Your task to perform on an android device: see sites visited before in the chrome app Image 0: 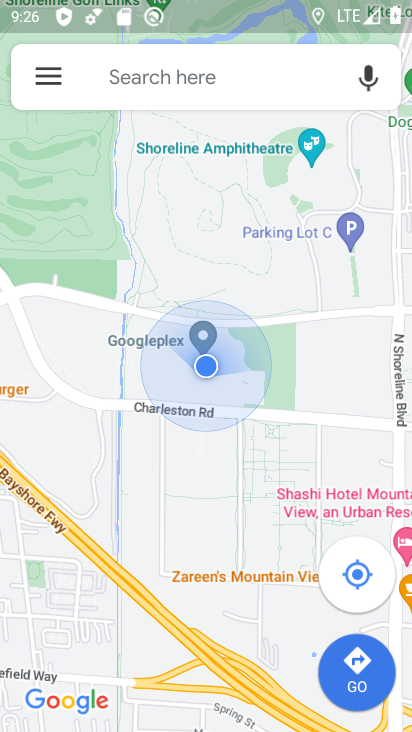
Step 0: press home button
Your task to perform on an android device: see sites visited before in the chrome app Image 1: 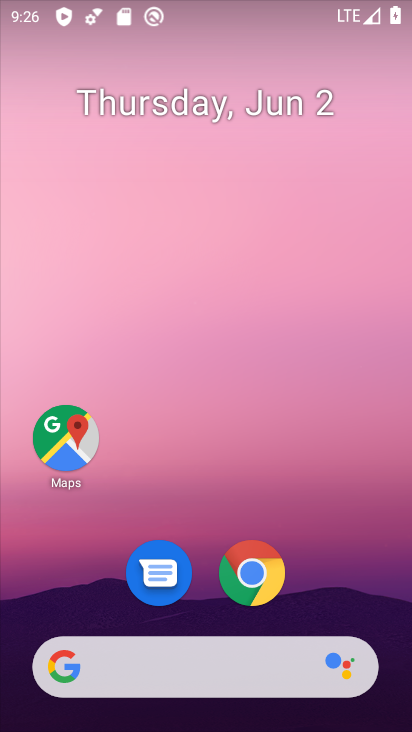
Step 1: click (247, 577)
Your task to perform on an android device: see sites visited before in the chrome app Image 2: 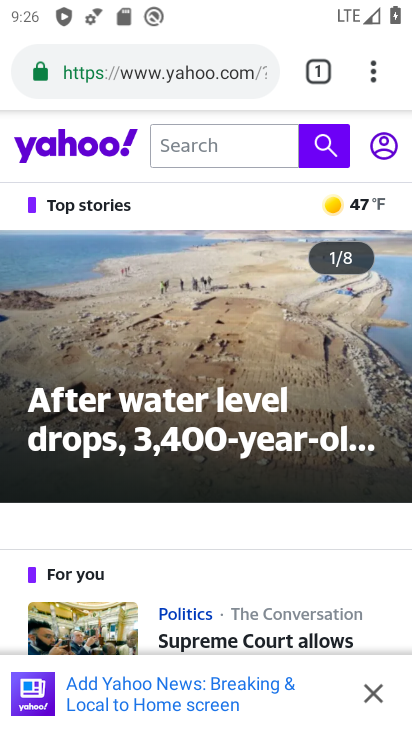
Step 2: click (372, 67)
Your task to perform on an android device: see sites visited before in the chrome app Image 3: 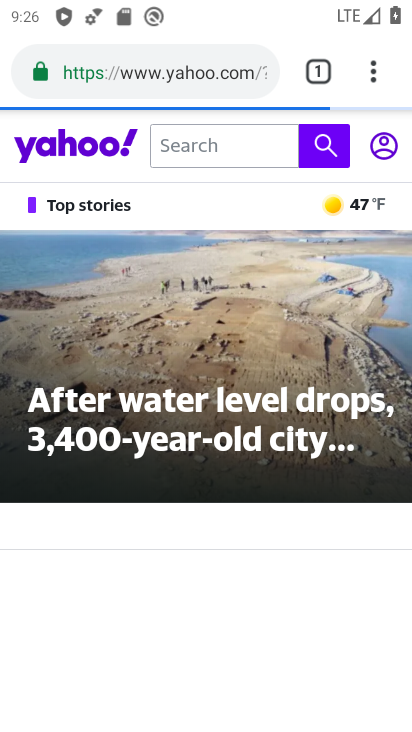
Step 3: task complete